Your task to perform on an android device: toggle location history Image 0: 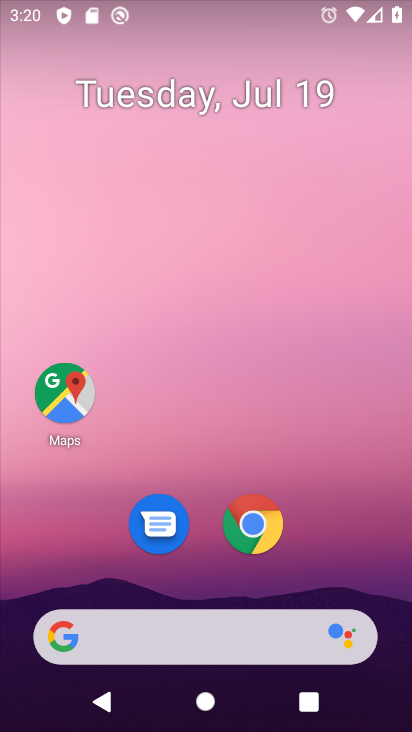
Step 0: drag from (195, 458) to (244, 10)
Your task to perform on an android device: toggle location history Image 1: 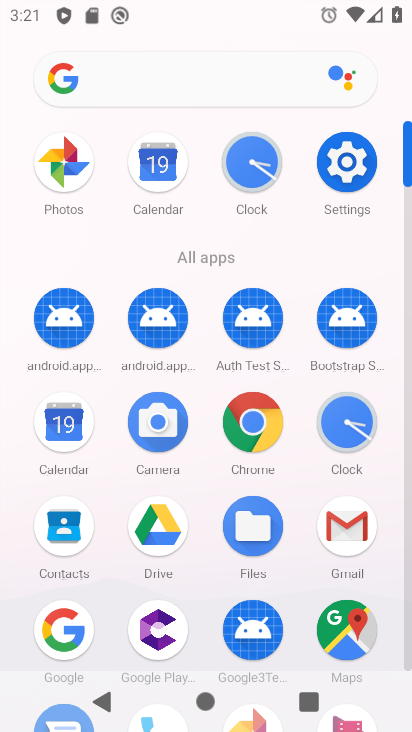
Step 1: click (347, 172)
Your task to perform on an android device: toggle location history Image 2: 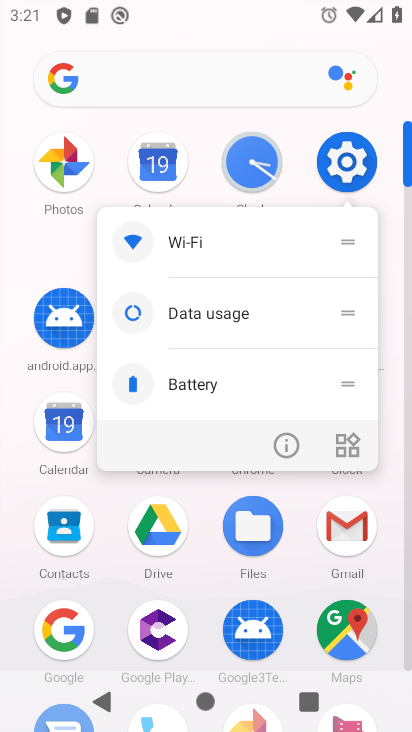
Step 2: click (347, 153)
Your task to perform on an android device: toggle location history Image 3: 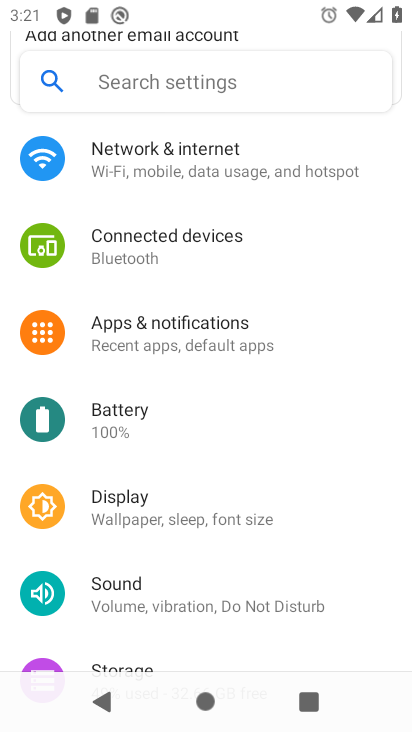
Step 3: drag from (205, 491) to (241, 164)
Your task to perform on an android device: toggle location history Image 4: 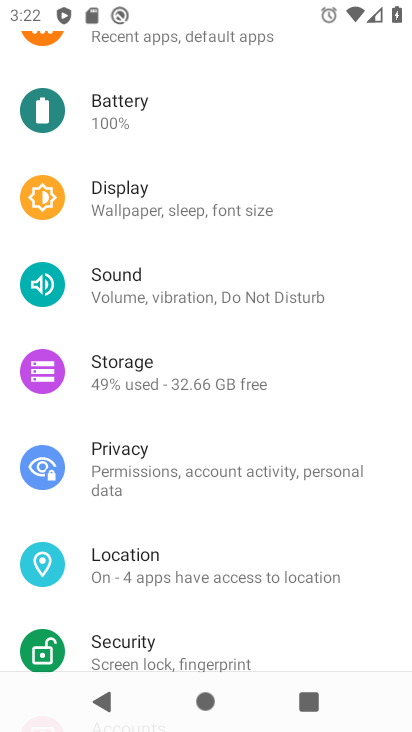
Step 4: click (217, 574)
Your task to perform on an android device: toggle location history Image 5: 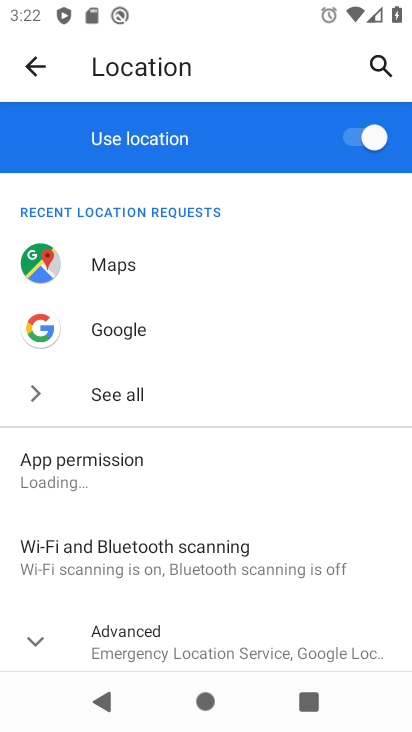
Step 5: click (36, 637)
Your task to perform on an android device: toggle location history Image 6: 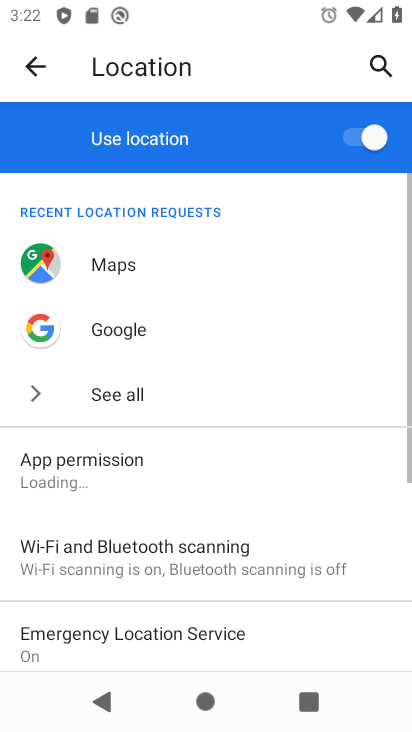
Step 6: drag from (253, 600) to (263, 229)
Your task to perform on an android device: toggle location history Image 7: 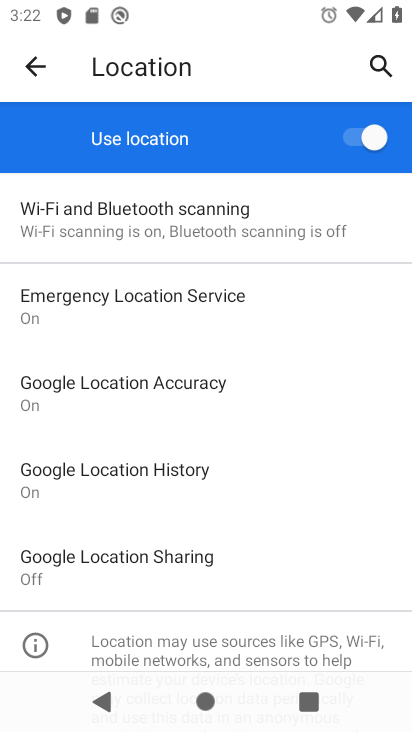
Step 7: click (134, 484)
Your task to perform on an android device: toggle location history Image 8: 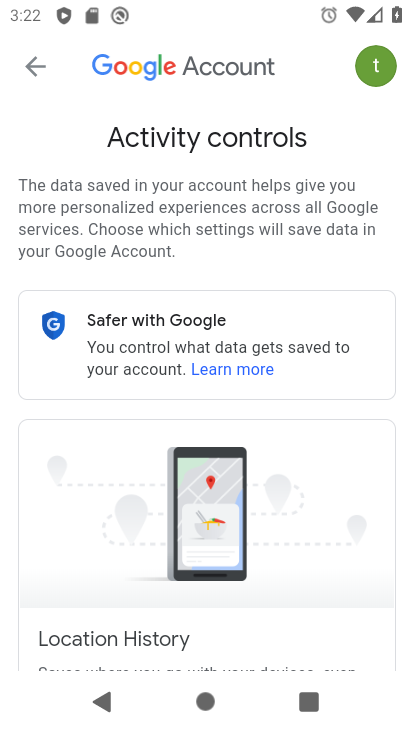
Step 8: drag from (312, 533) to (316, 146)
Your task to perform on an android device: toggle location history Image 9: 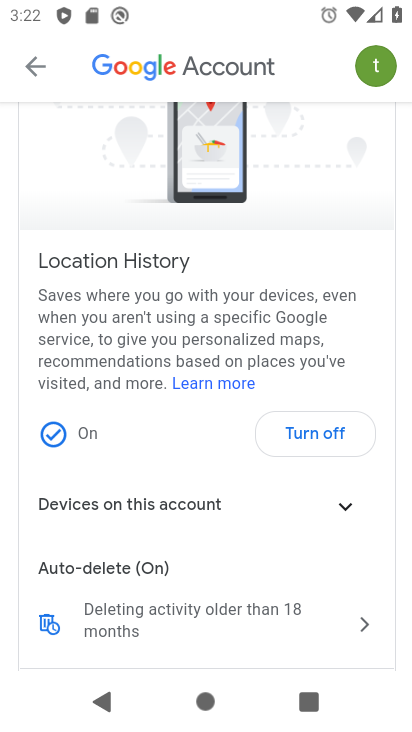
Step 9: click (317, 427)
Your task to perform on an android device: toggle location history Image 10: 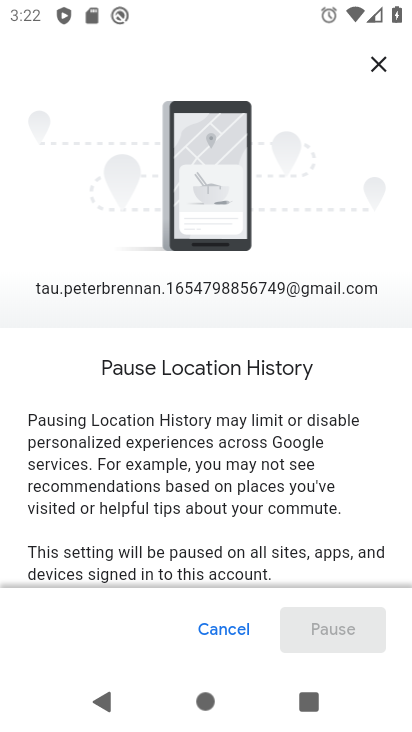
Step 10: drag from (322, 523) to (341, 55)
Your task to perform on an android device: toggle location history Image 11: 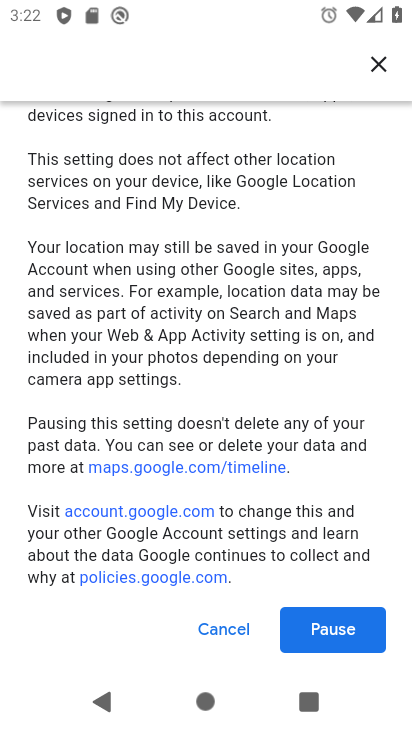
Step 11: click (293, 480)
Your task to perform on an android device: toggle location history Image 12: 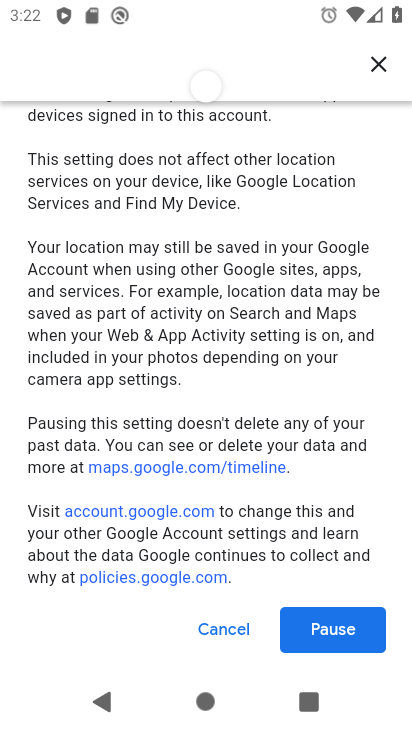
Step 12: click (341, 625)
Your task to perform on an android device: toggle location history Image 13: 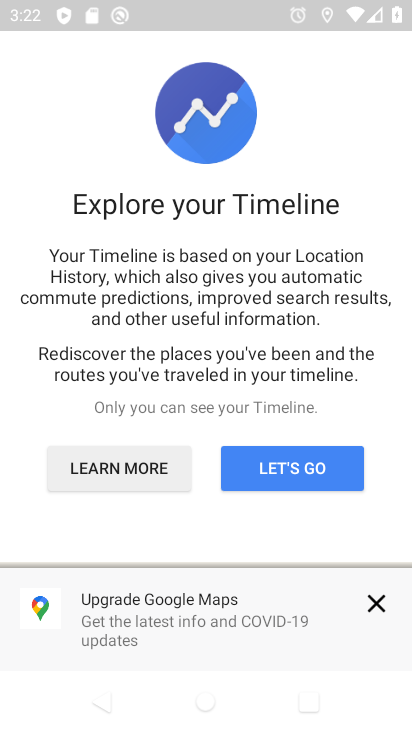
Step 13: click (347, 466)
Your task to perform on an android device: toggle location history Image 14: 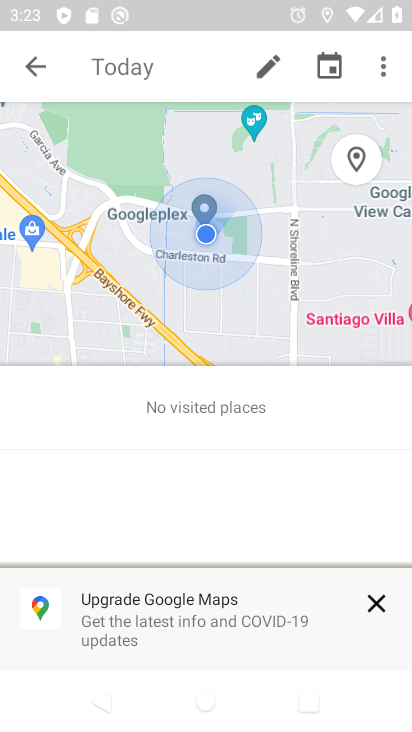
Step 14: task complete